Your task to perform on an android device: open app "McDonald's" Image 0: 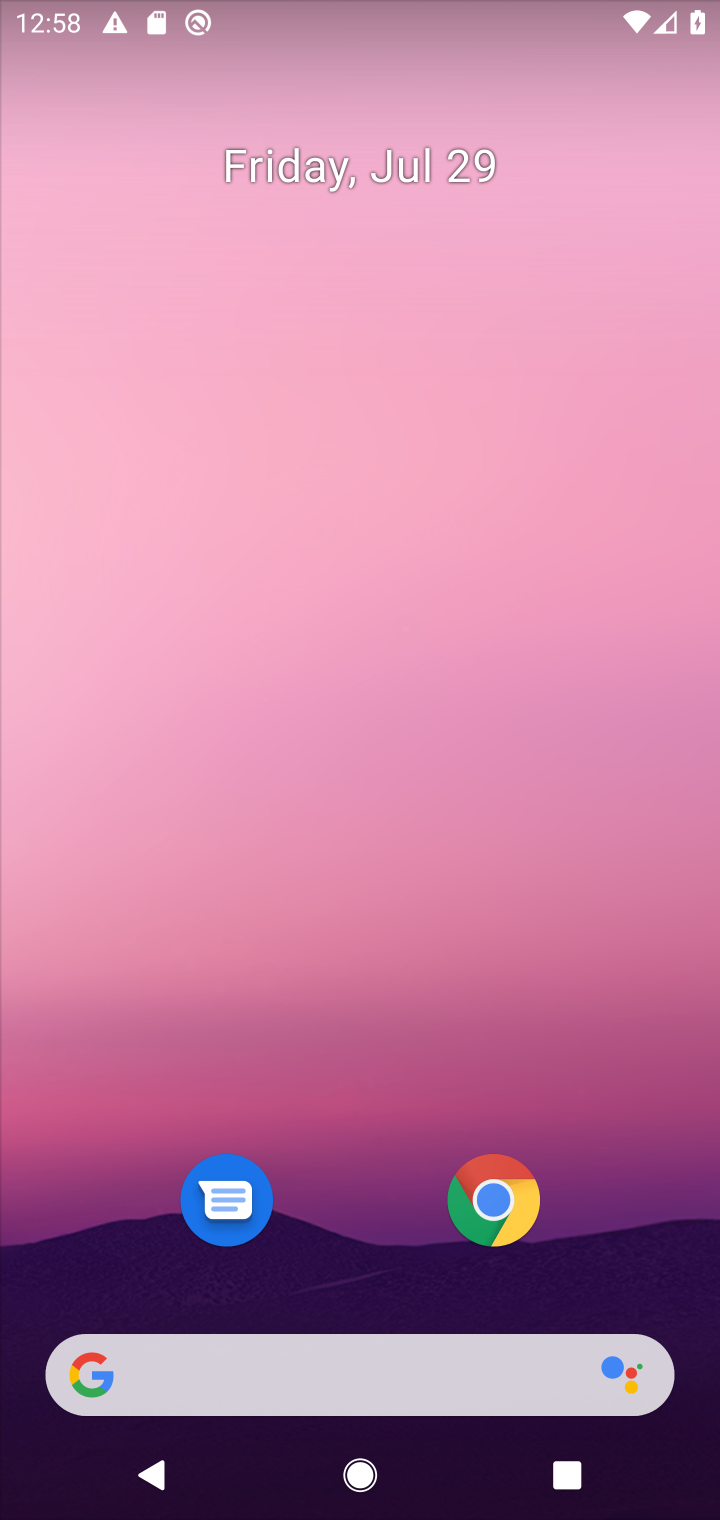
Step 0: drag from (532, 744) to (272, 9)
Your task to perform on an android device: open app "McDonald's" Image 1: 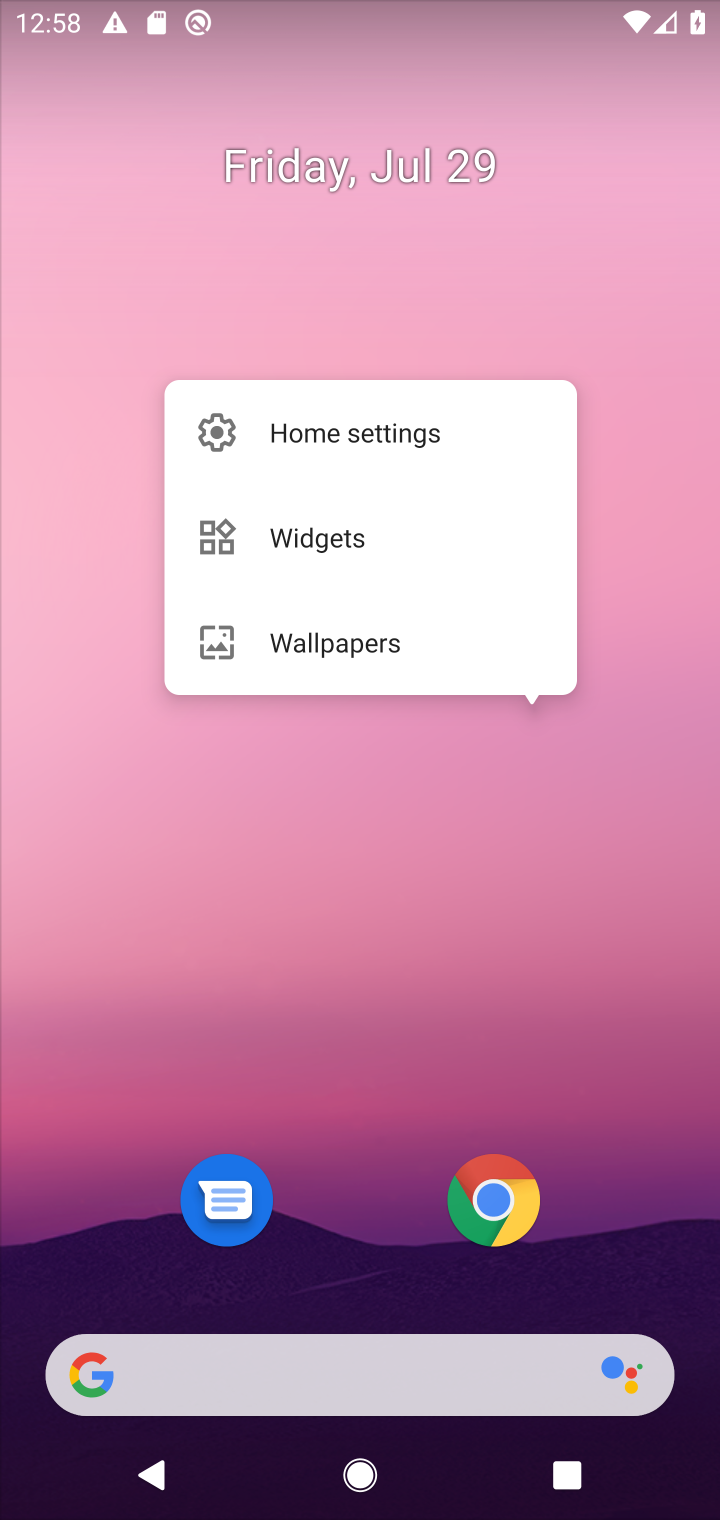
Step 1: click (560, 817)
Your task to perform on an android device: open app "McDonald's" Image 2: 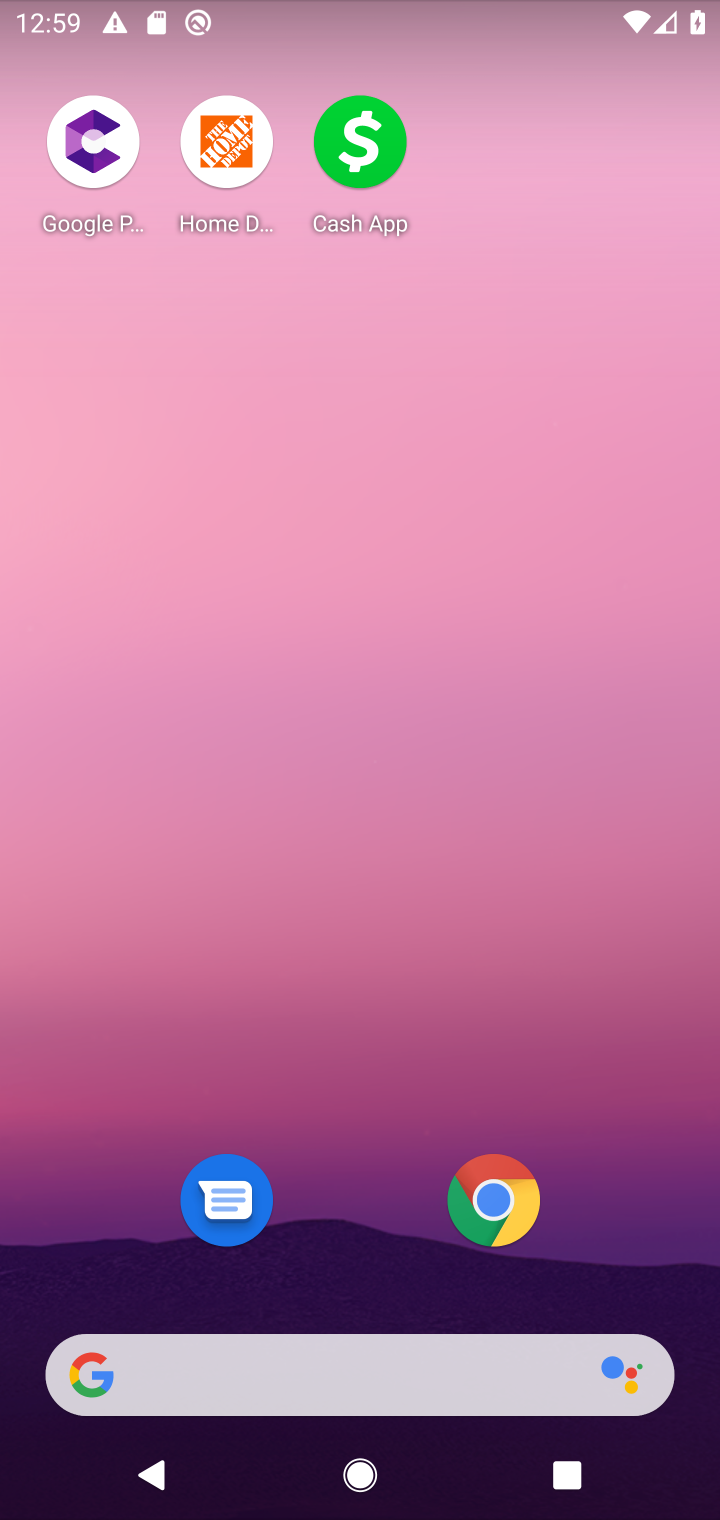
Step 2: drag from (516, 343) to (307, 0)
Your task to perform on an android device: open app "McDonald's" Image 3: 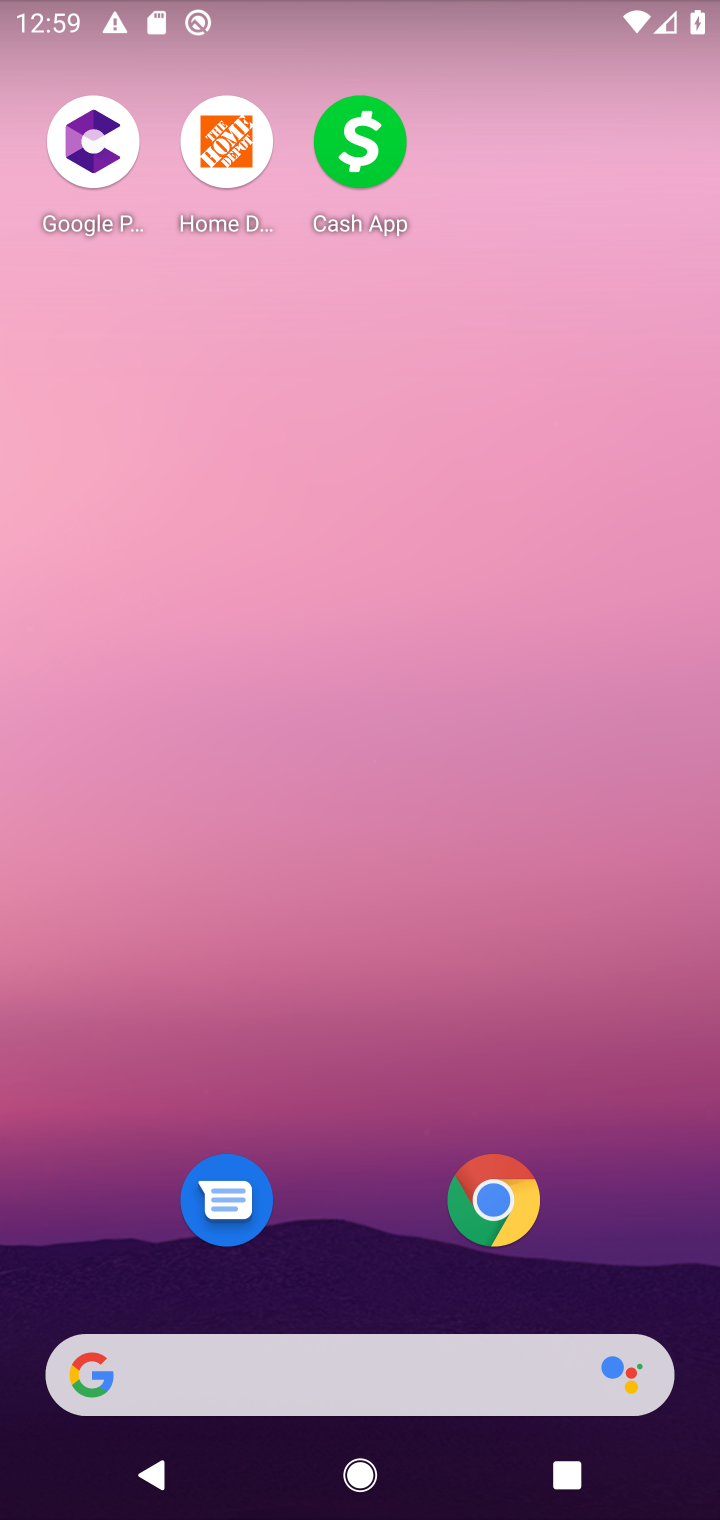
Step 3: drag from (498, 601) to (539, 91)
Your task to perform on an android device: open app "McDonald's" Image 4: 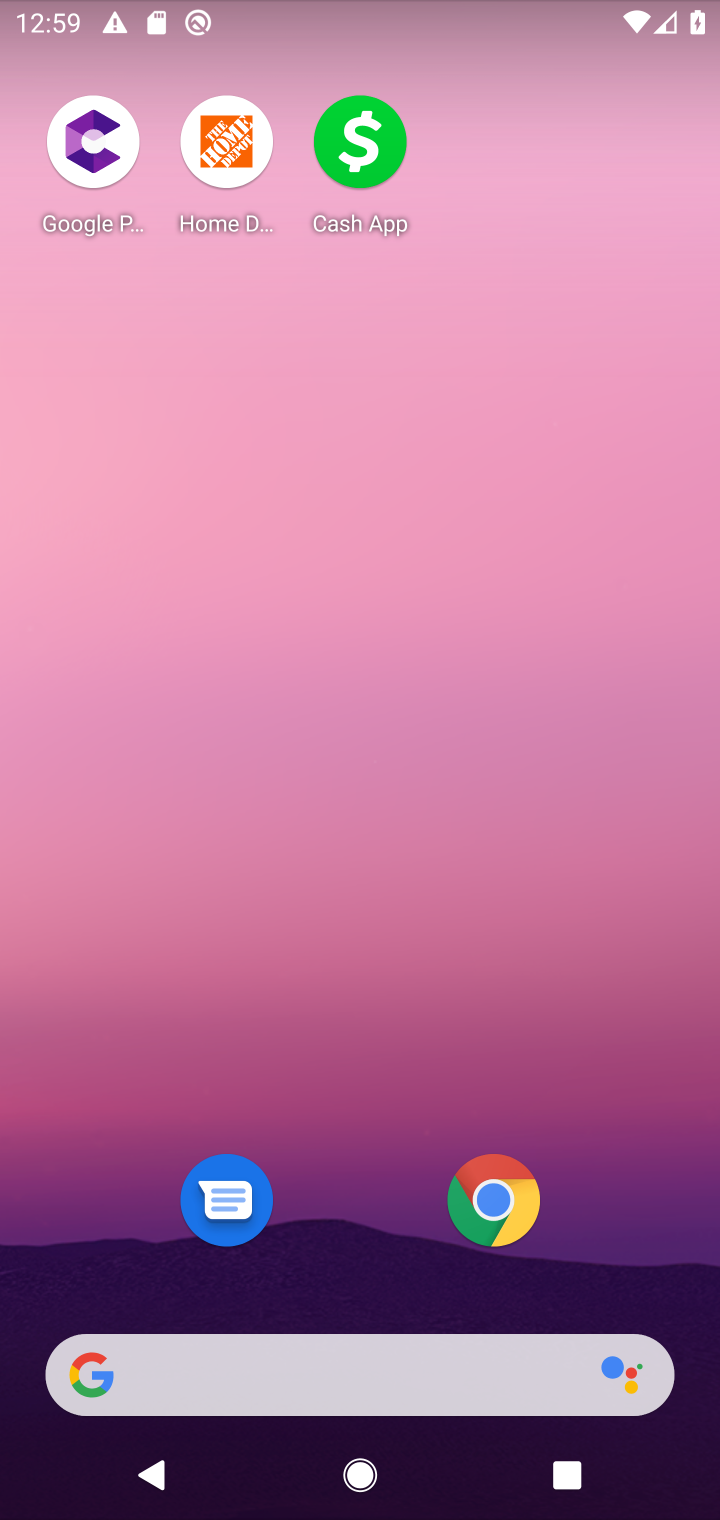
Step 4: drag from (568, 221) to (537, 0)
Your task to perform on an android device: open app "McDonald's" Image 5: 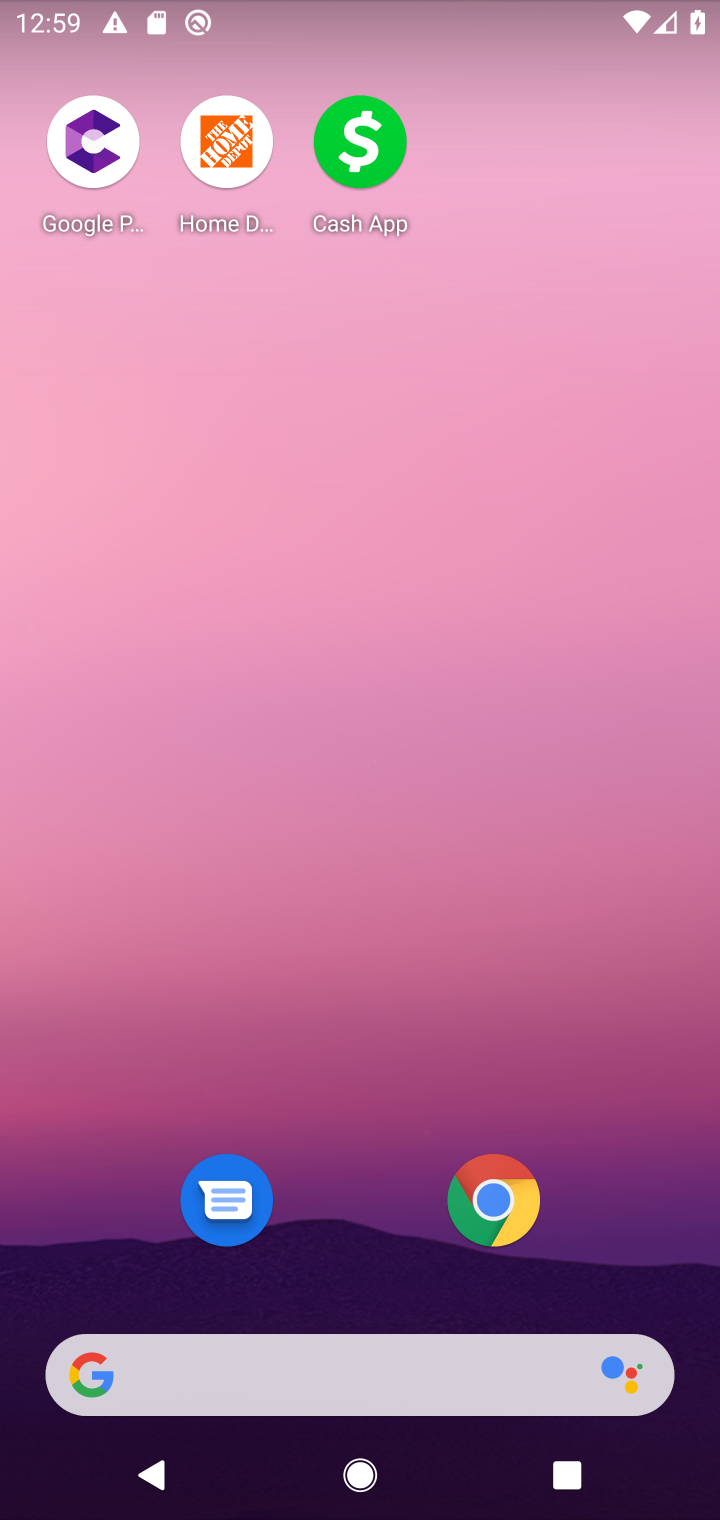
Step 5: drag from (595, 1079) to (575, 216)
Your task to perform on an android device: open app "McDonald's" Image 6: 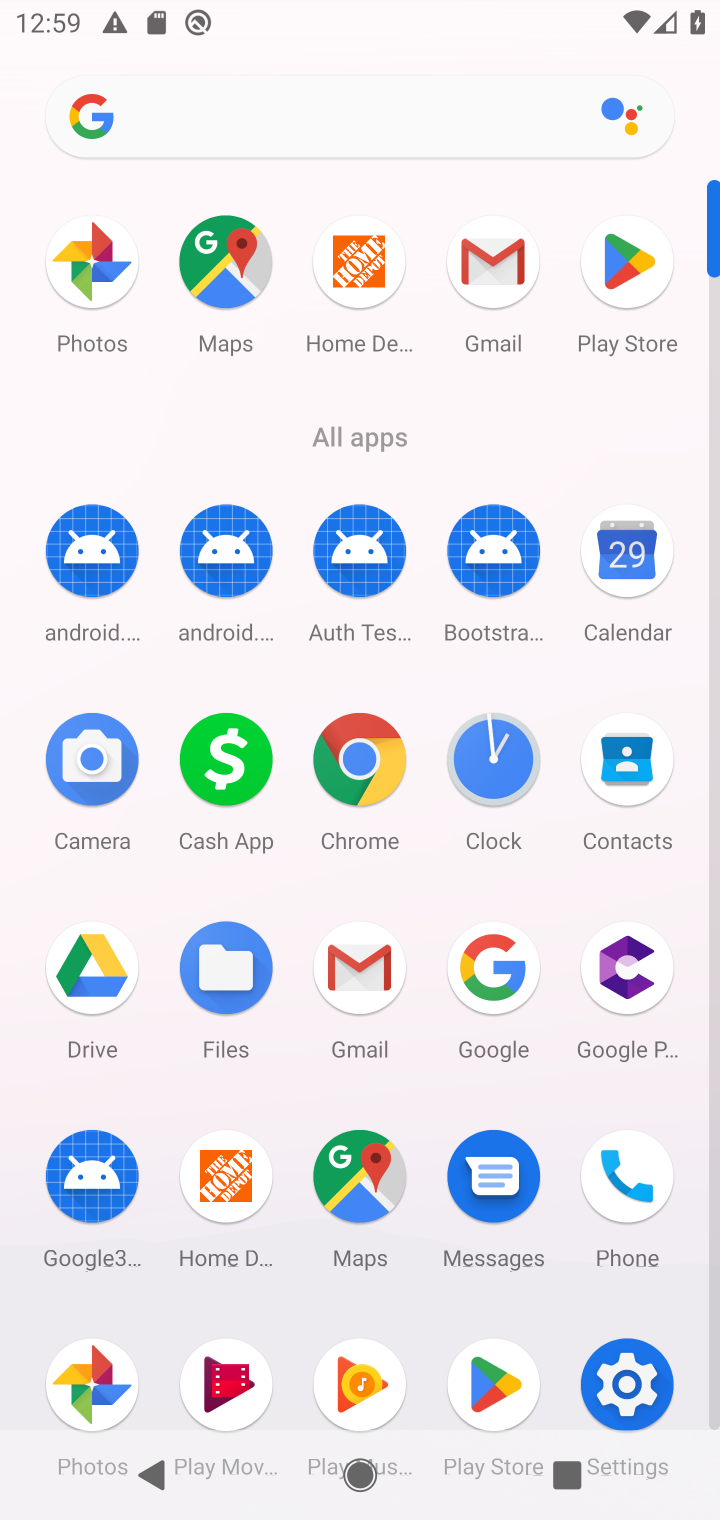
Step 6: click (610, 250)
Your task to perform on an android device: open app "McDonald's" Image 7: 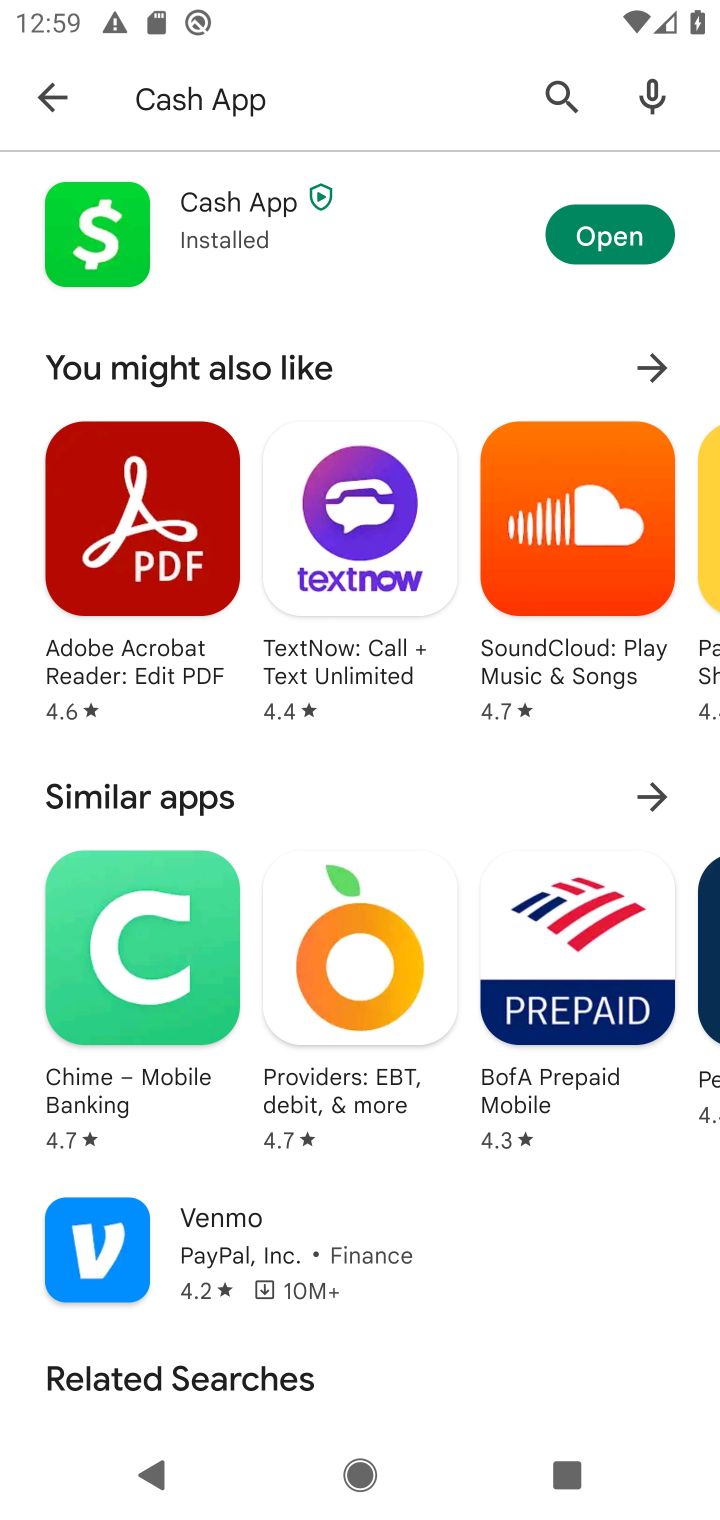
Step 7: click (423, 83)
Your task to perform on an android device: open app "McDonald's" Image 8: 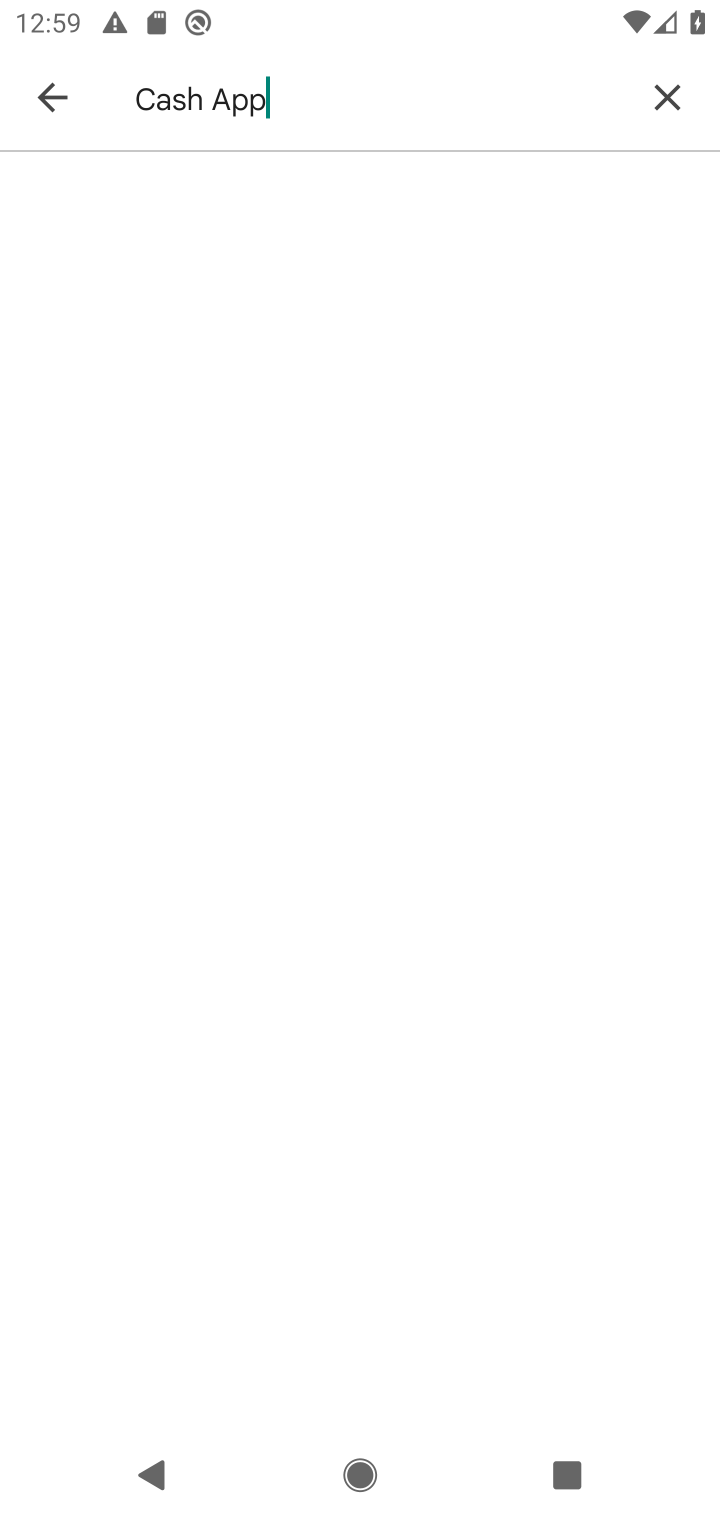
Step 8: click (673, 98)
Your task to perform on an android device: open app "McDonald's" Image 9: 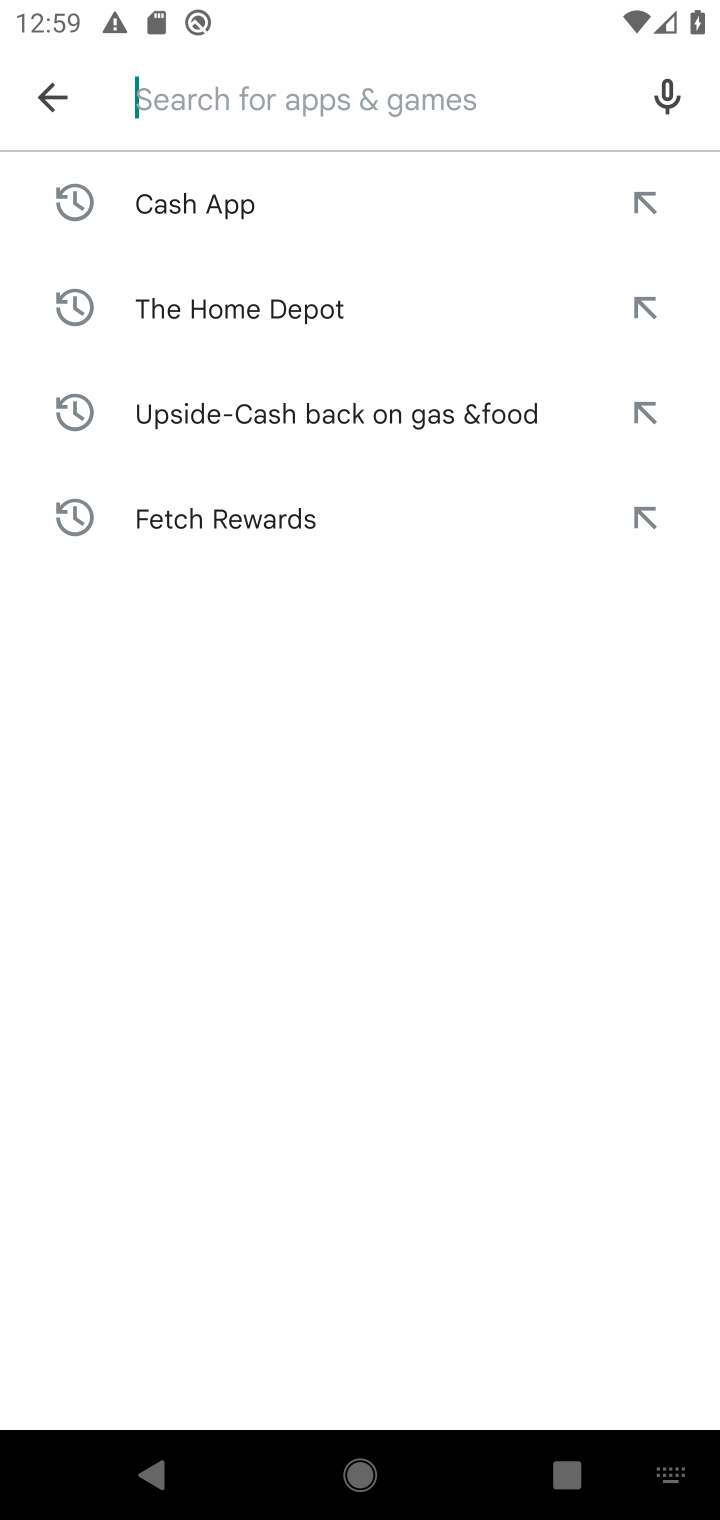
Step 9: type "McDonald's"
Your task to perform on an android device: open app "McDonald's" Image 10: 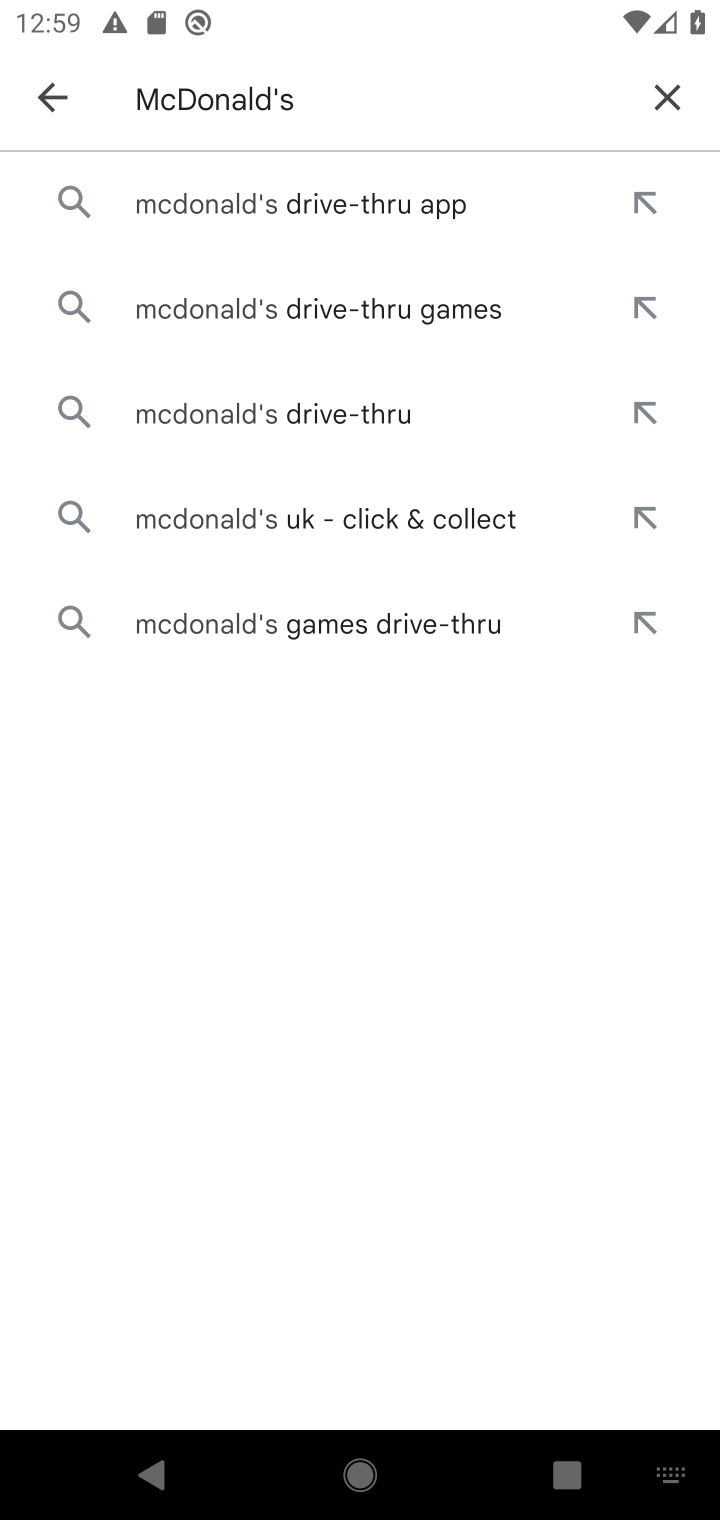
Step 10: press enter
Your task to perform on an android device: open app "McDonald's" Image 11: 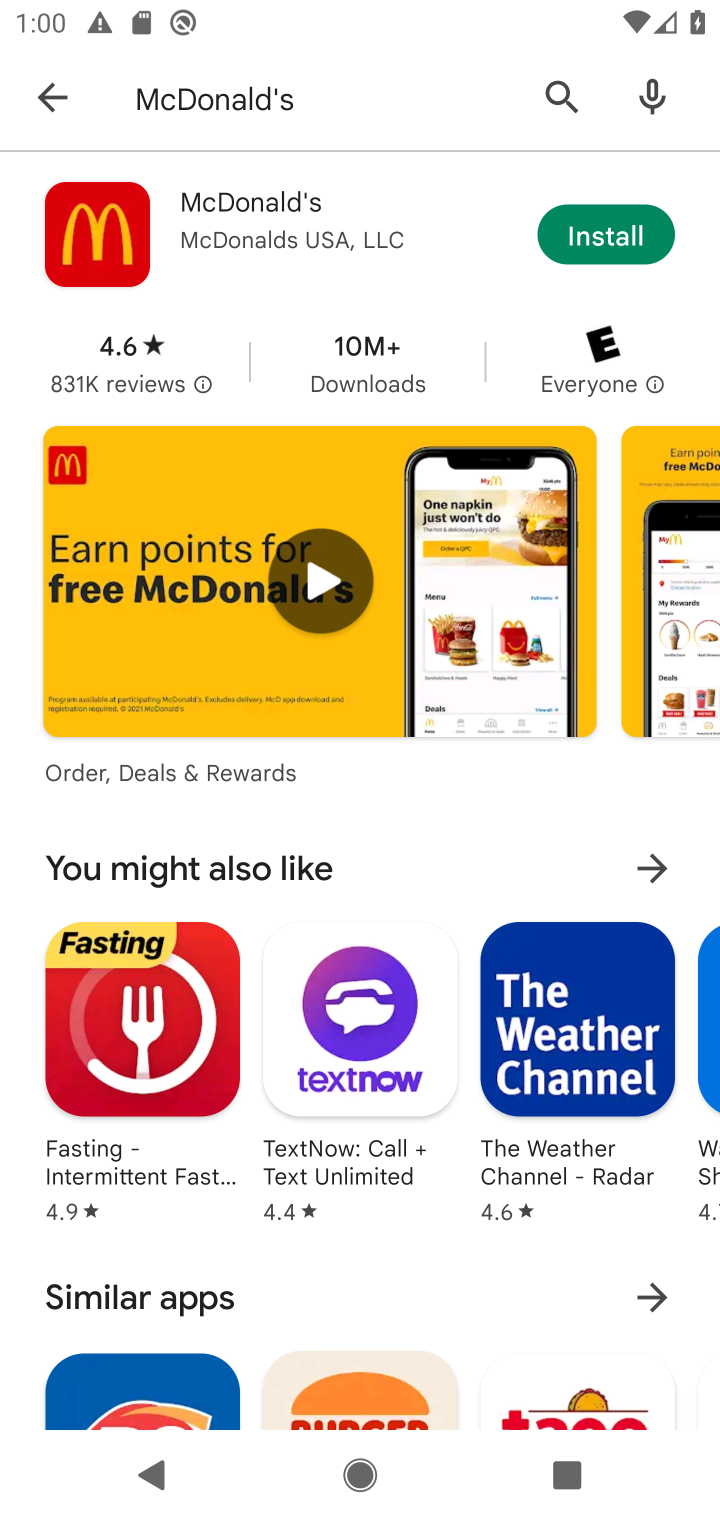
Step 11: task complete